Your task to perform on an android device: Open Yahoo.com Image 0: 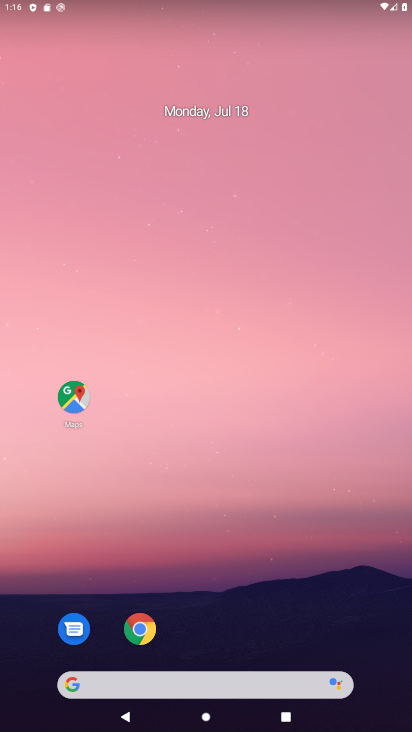
Step 0: click (175, 691)
Your task to perform on an android device: Open Yahoo.com Image 1: 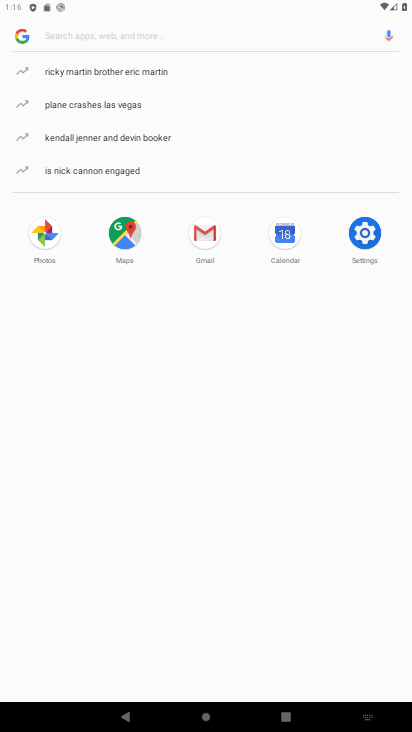
Step 1: type "Yahoo.com"
Your task to perform on an android device: Open Yahoo.com Image 2: 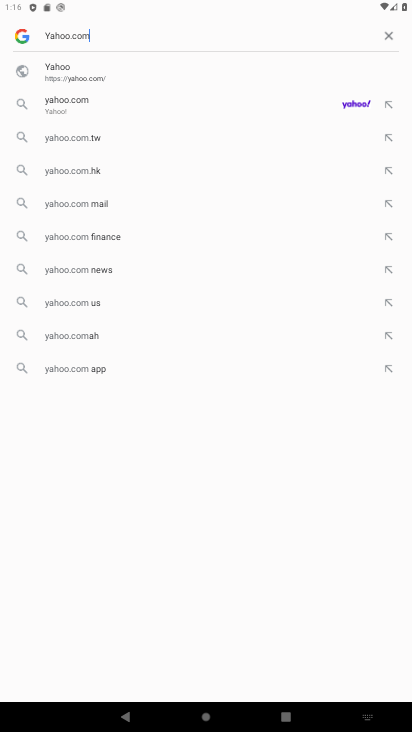
Step 2: type ""
Your task to perform on an android device: Open Yahoo.com Image 3: 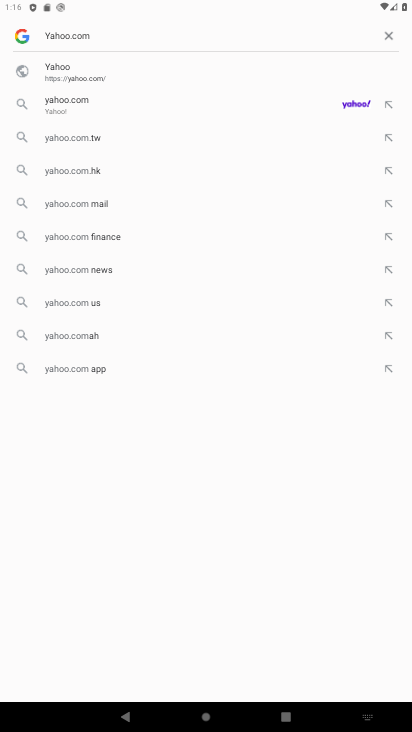
Step 3: press enter
Your task to perform on an android device: Open Yahoo.com Image 4: 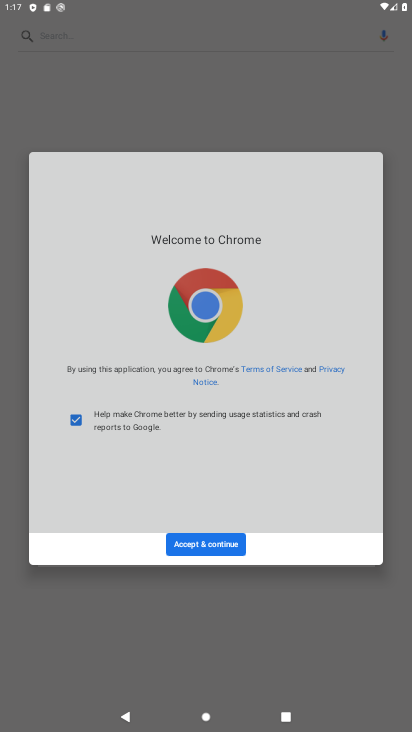
Step 4: click (200, 543)
Your task to perform on an android device: Open Yahoo.com Image 5: 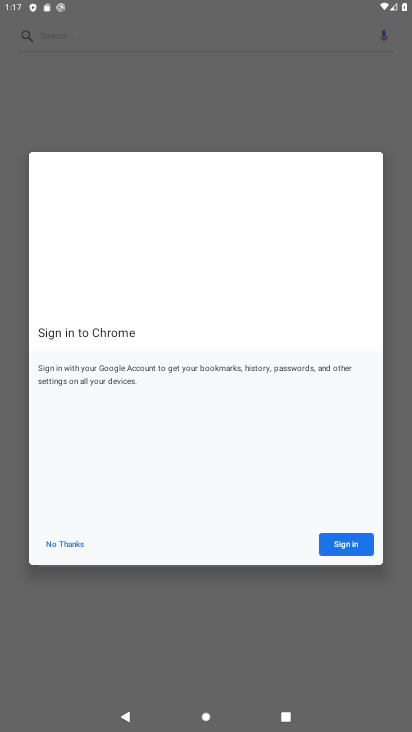
Step 5: click (358, 550)
Your task to perform on an android device: Open Yahoo.com Image 6: 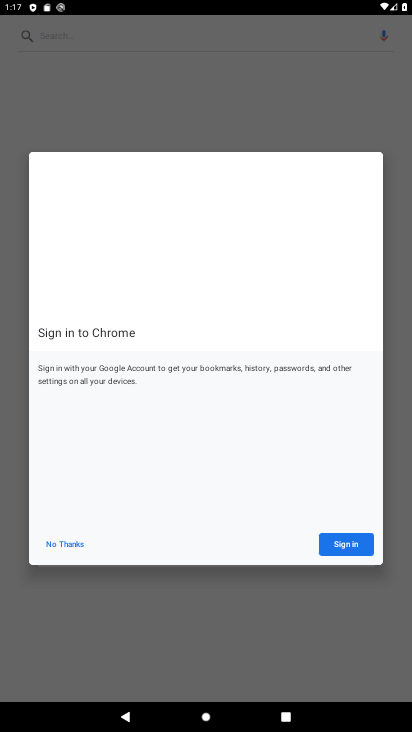
Step 6: click (59, 542)
Your task to perform on an android device: Open Yahoo.com Image 7: 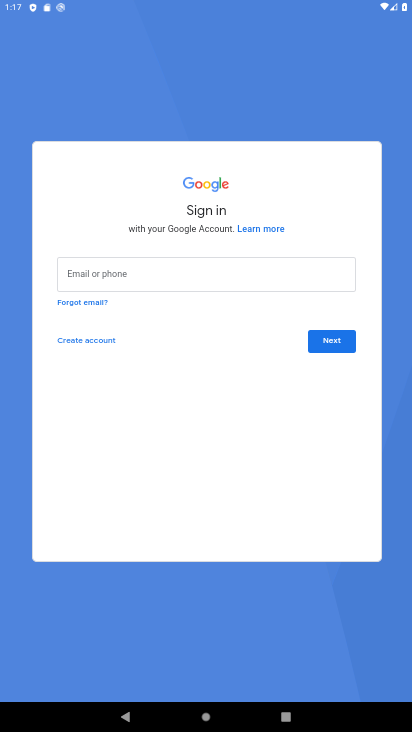
Step 7: press home button
Your task to perform on an android device: Open Yahoo.com Image 8: 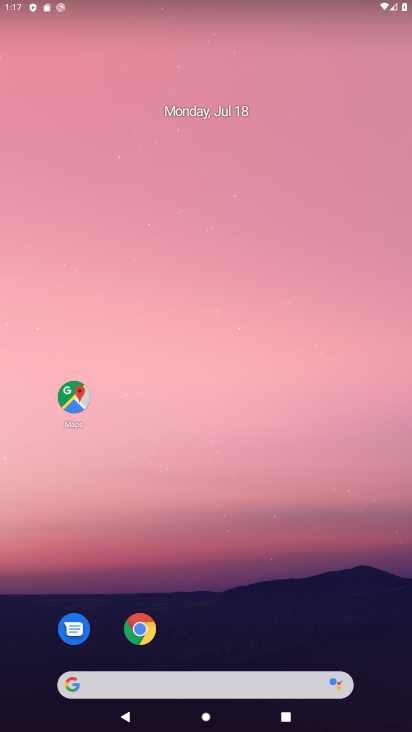
Step 8: click (145, 688)
Your task to perform on an android device: Open Yahoo.com Image 9: 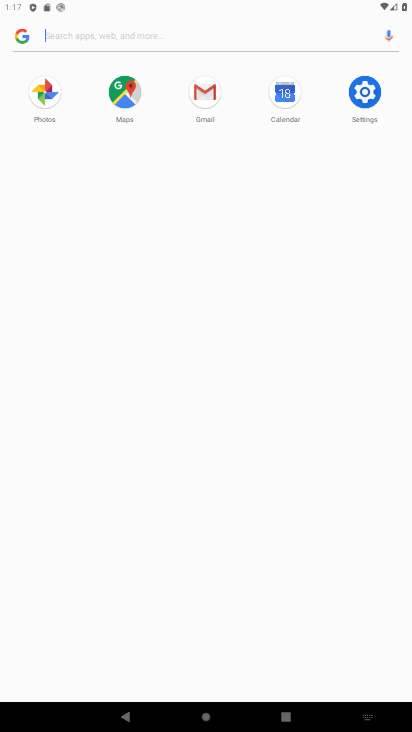
Step 9: type "Yahoo.com"
Your task to perform on an android device: Open Yahoo.com Image 10: 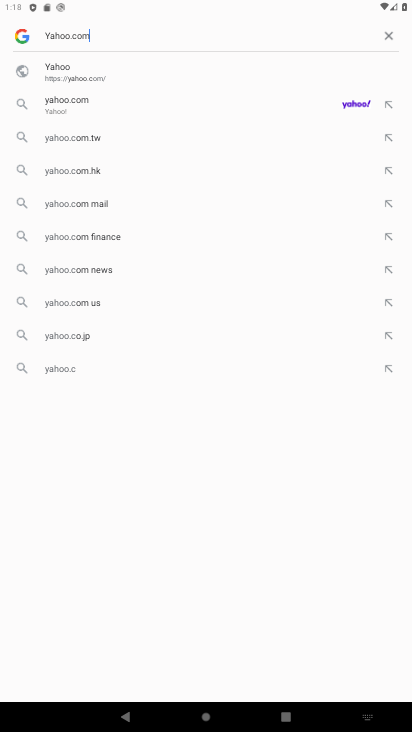
Step 10: type ""
Your task to perform on an android device: Open Yahoo.com Image 11: 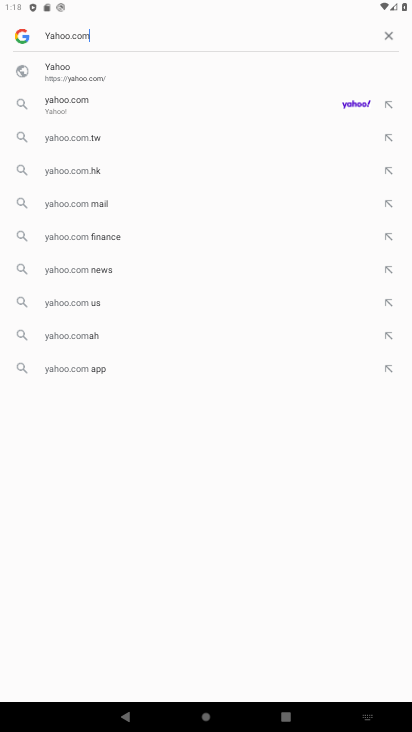
Step 11: press enter
Your task to perform on an android device: Open Yahoo.com Image 12: 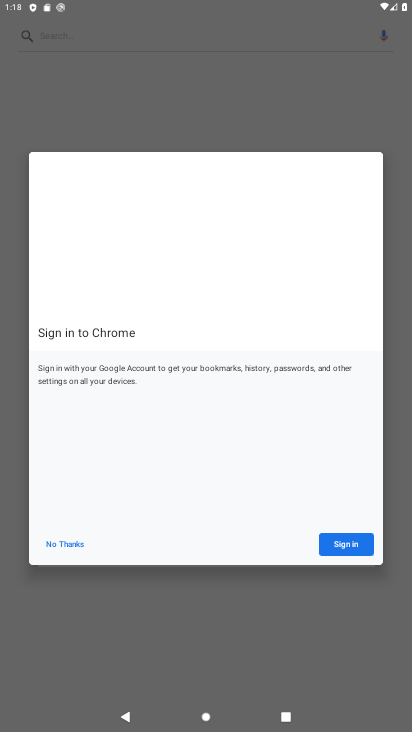
Step 12: click (71, 546)
Your task to perform on an android device: Open Yahoo.com Image 13: 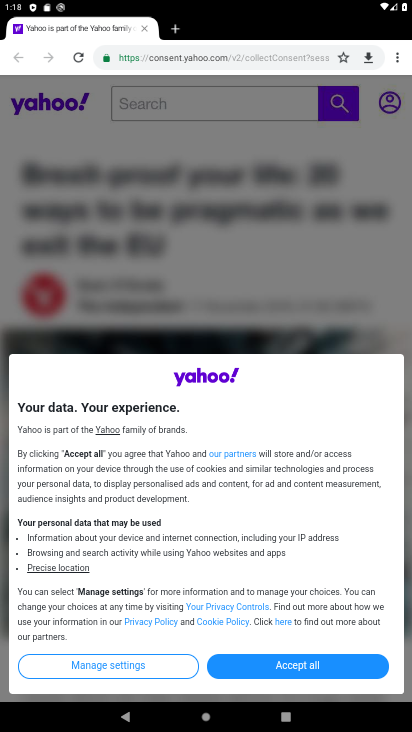
Step 13: task complete